Your task to perform on an android device: turn off location Image 0: 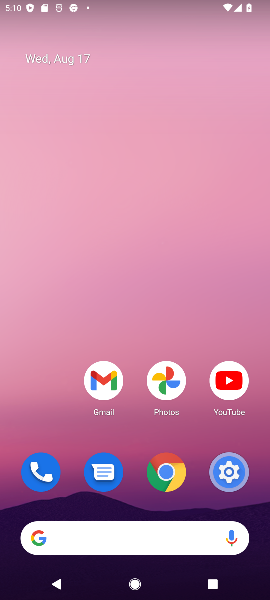
Step 0: click (231, 475)
Your task to perform on an android device: turn off location Image 1: 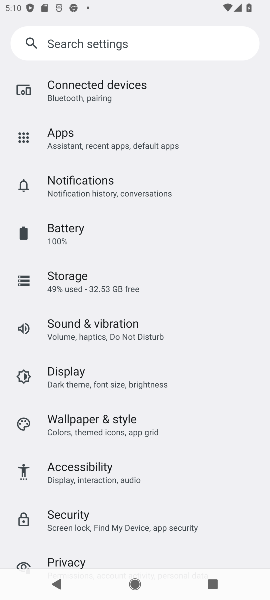
Step 1: drag from (100, 468) to (106, 192)
Your task to perform on an android device: turn off location Image 2: 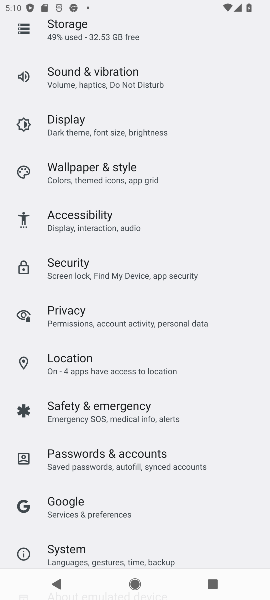
Step 2: click (97, 356)
Your task to perform on an android device: turn off location Image 3: 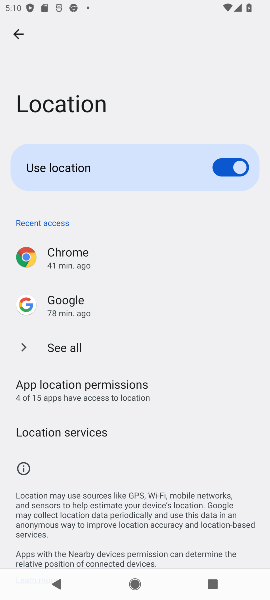
Step 3: click (206, 169)
Your task to perform on an android device: turn off location Image 4: 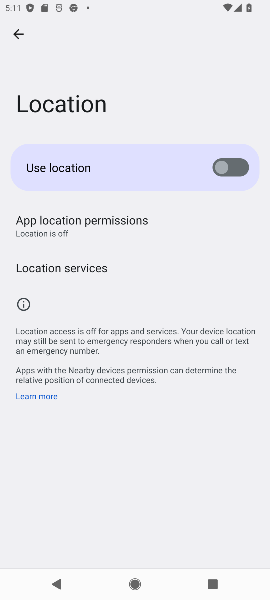
Step 4: task complete